Your task to perform on an android device: Is it going to rain this weekend? Image 0: 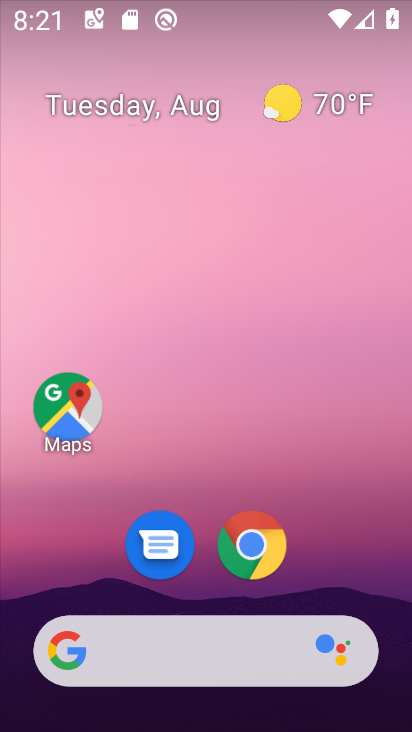
Step 0: drag from (215, 610) to (277, 10)
Your task to perform on an android device: Is it going to rain this weekend? Image 1: 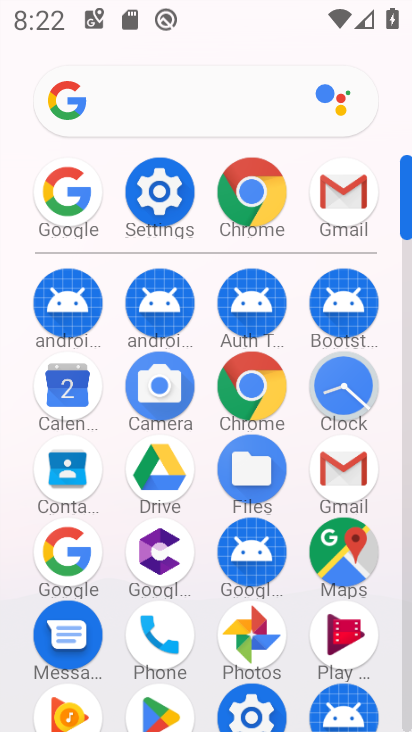
Step 1: drag from (196, 505) to (235, 237)
Your task to perform on an android device: Is it going to rain this weekend? Image 2: 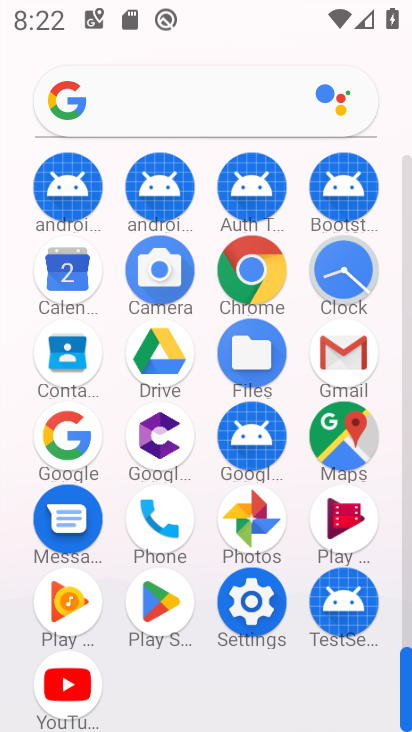
Step 2: click (89, 453)
Your task to perform on an android device: Is it going to rain this weekend? Image 3: 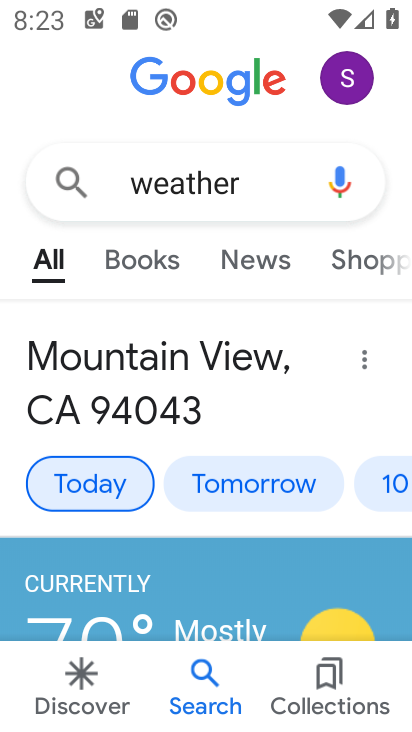
Step 3: click (384, 487)
Your task to perform on an android device: Is it going to rain this weekend? Image 4: 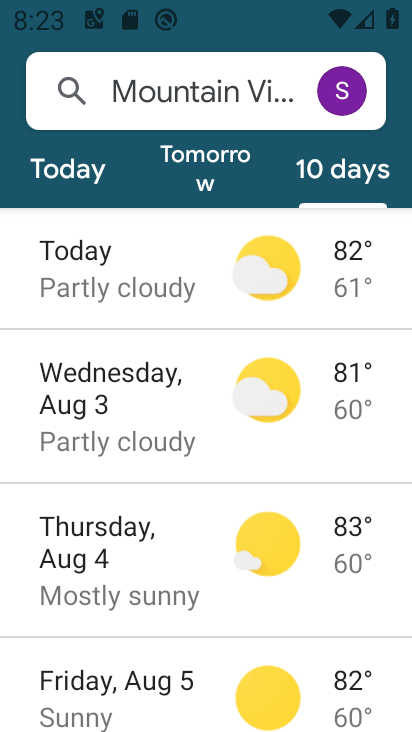
Step 4: task complete